Your task to perform on an android device: choose inbox layout in the gmail app Image 0: 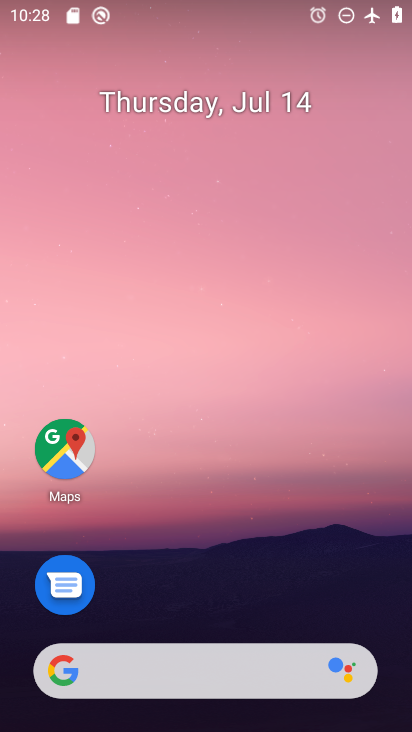
Step 0: drag from (276, 618) to (131, 172)
Your task to perform on an android device: choose inbox layout in the gmail app Image 1: 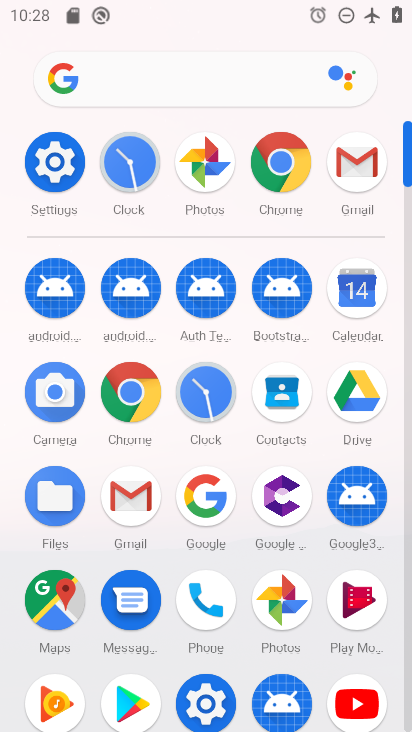
Step 1: click (138, 507)
Your task to perform on an android device: choose inbox layout in the gmail app Image 2: 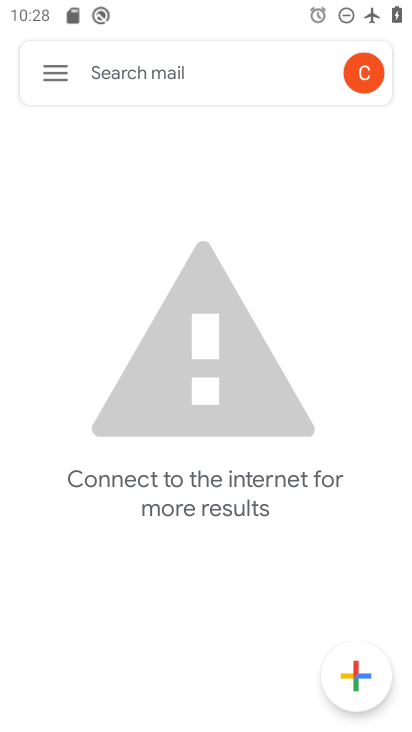
Step 2: click (50, 76)
Your task to perform on an android device: choose inbox layout in the gmail app Image 3: 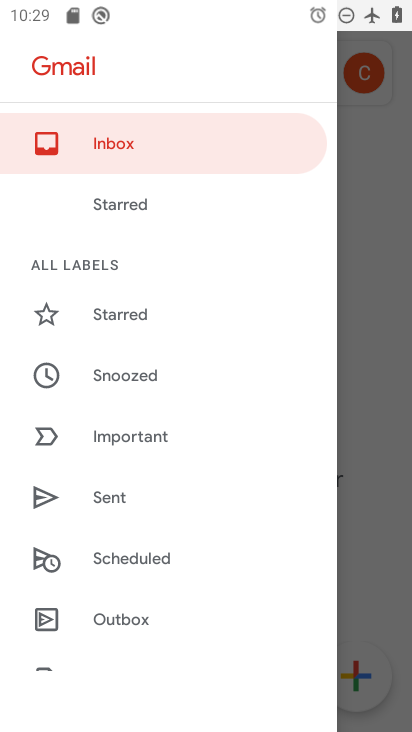
Step 3: drag from (91, 624) to (27, 82)
Your task to perform on an android device: choose inbox layout in the gmail app Image 4: 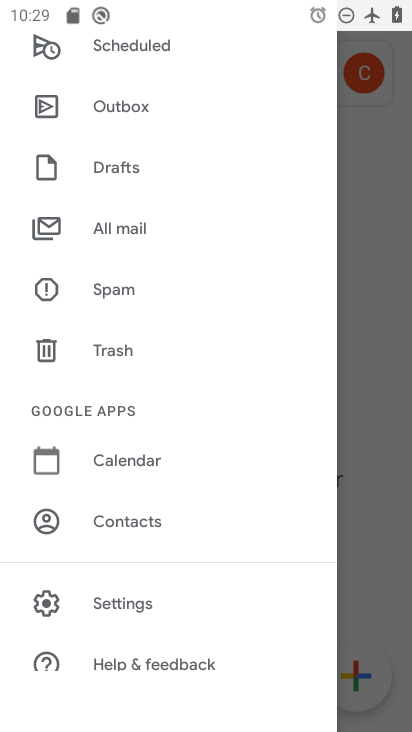
Step 4: click (152, 591)
Your task to perform on an android device: choose inbox layout in the gmail app Image 5: 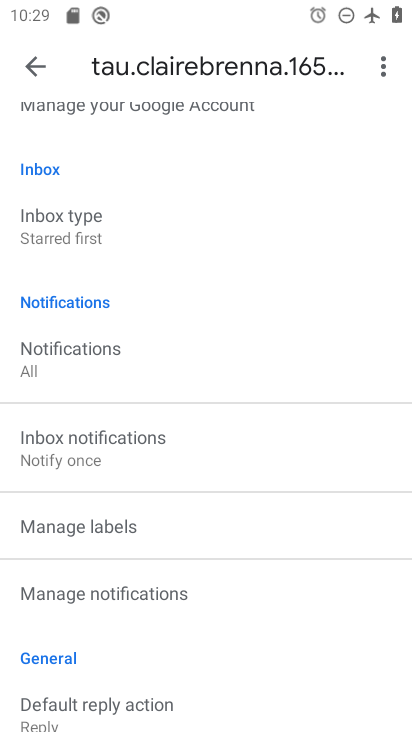
Step 5: click (69, 246)
Your task to perform on an android device: choose inbox layout in the gmail app Image 6: 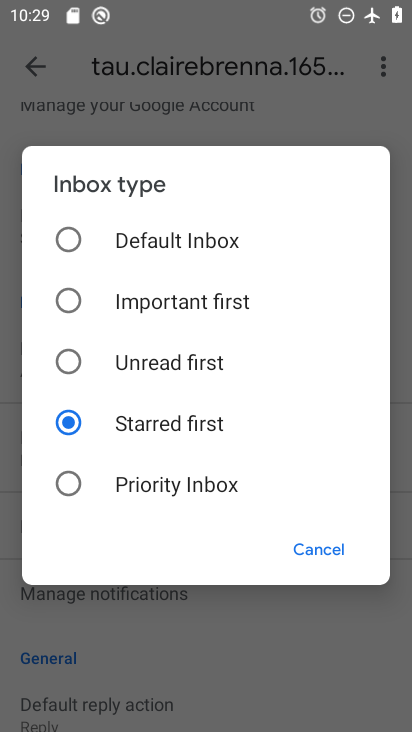
Step 6: click (100, 481)
Your task to perform on an android device: choose inbox layout in the gmail app Image 7: 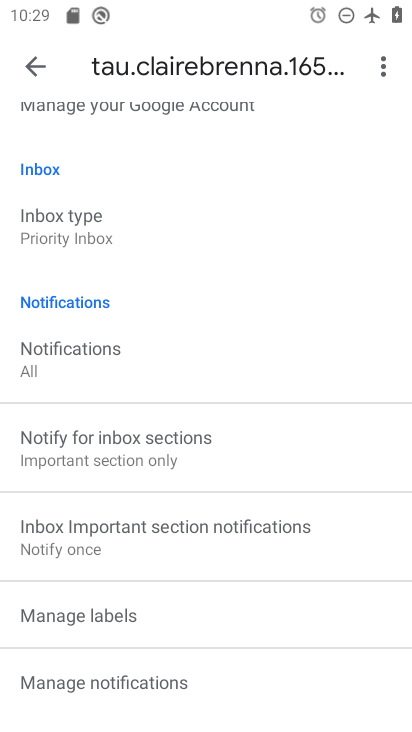
Step 7: click (23, 57)
Your task to perform on an android device: choose inbox layout in the gmail app Image 8: 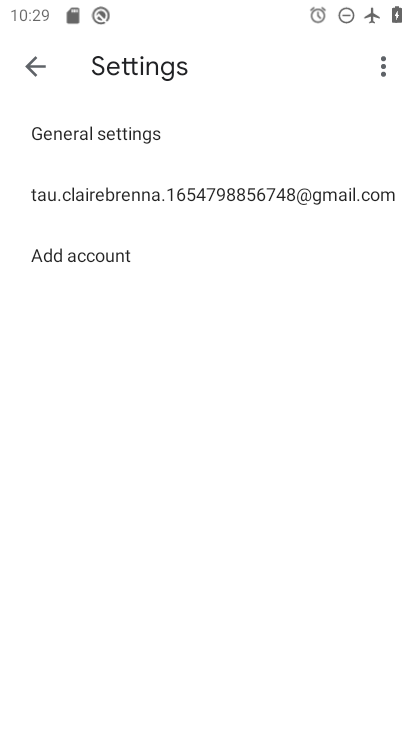
Step 8: click (19, 64)
Your task to perform on an android device: choose inbox layout in the gmail app Image 9: 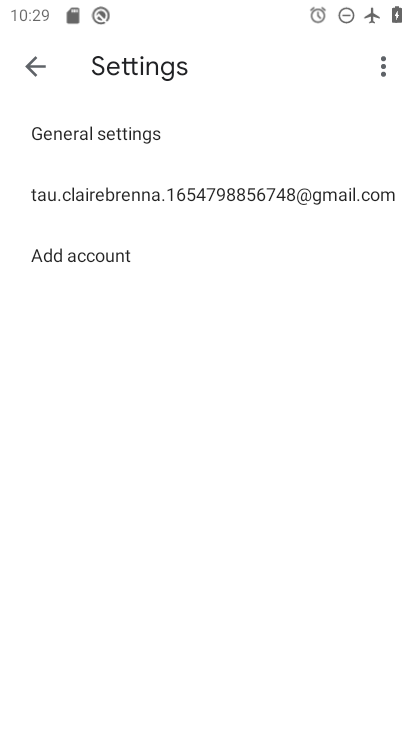
Step 9: click (40, 67)
Your task to perform on an android device: choose inbox layout in the gmail app Image 10: 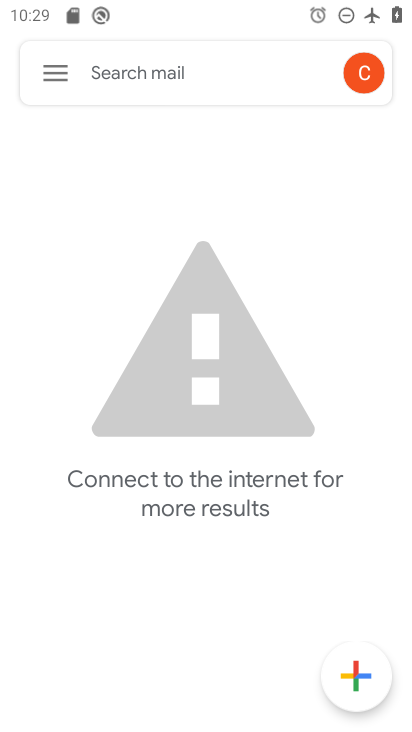
Step 10: click (47, 76)
Your task to perform on an android device: choose inbox layout in the gmail app Image 11: 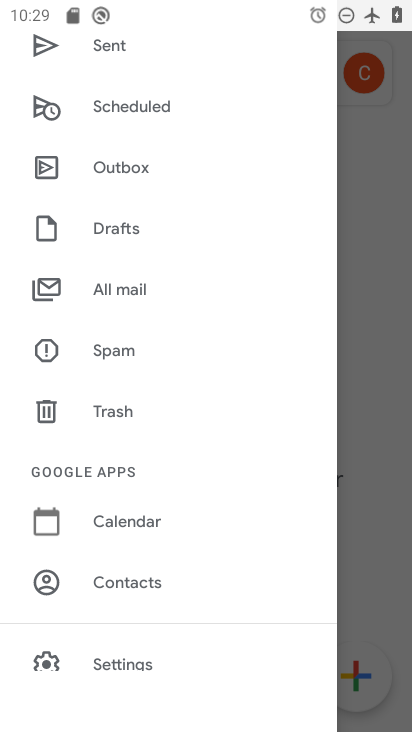
Step 11: drag from (47, 76) to (131, 456)
Your task to perform on an android device: choose inbox layout in the gmail app Image 12: 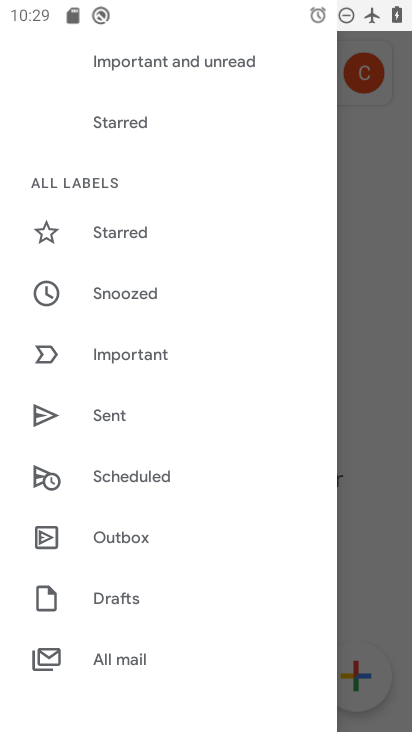
Step 12: drag from (130, 288) to (64, 639)
Your task to perform on an android device: choose inbox layout in the gmail app Image 13: 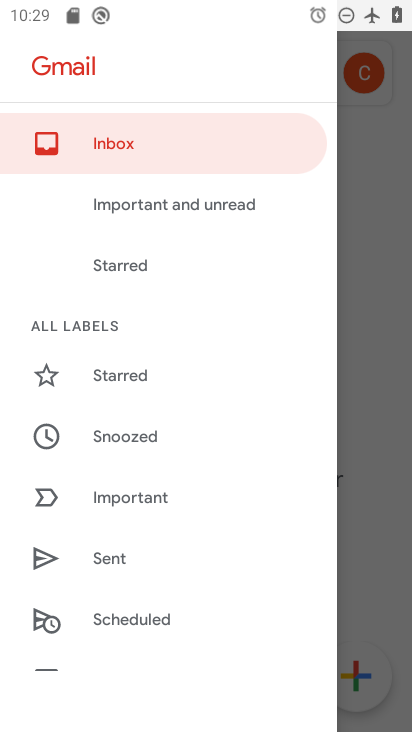
Step 13: click (70, 144)
Your task to perform on an android device: choose inbox layout in the gmail app Image 14: 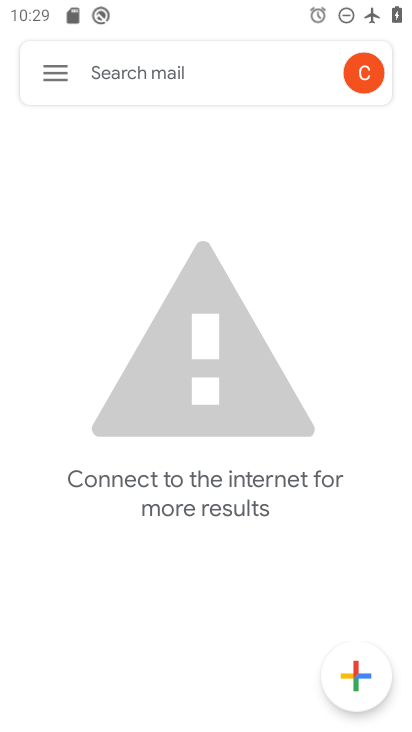
Step 14: task complete